Your task to perform on an android device: Do I have any events tomorrow? Image 0: 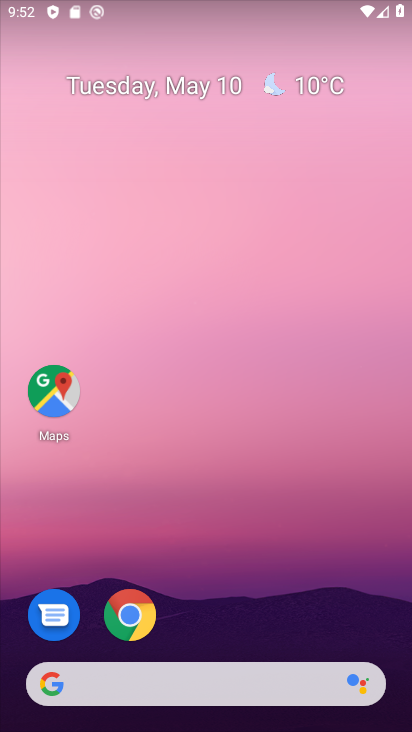
Step 0: drag from (377, 628) to (294, 5)
Your task to perform on an android device: Do I have any events tomorrow? Image 1: 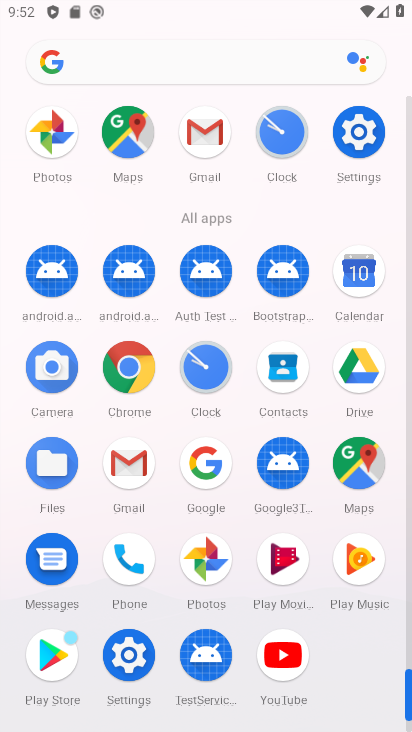
Step 1: click (358, 265)
Your task to perform on an android device: Do I have any events tomorrow? Image 2: 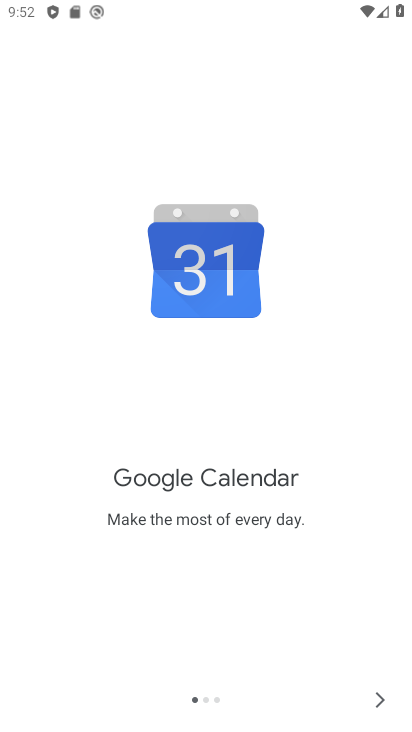
Step 2: click (379, 696)
Your task to perform on an android device: Do I have any events tomorrow? Image 3: 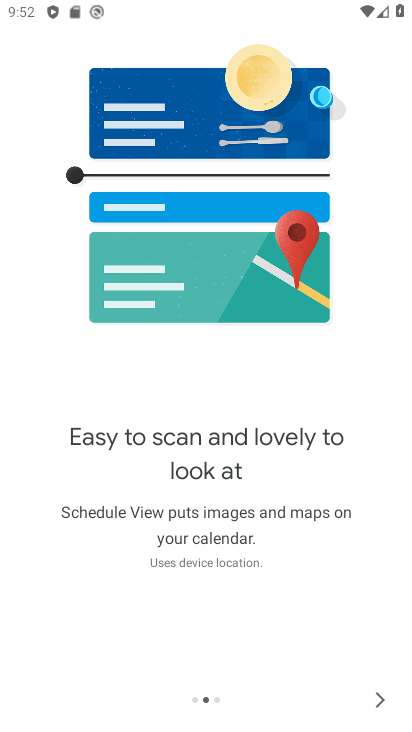
Step 3: click (379, 696)
Your task to perform on an android device: Do I have any events tomorrow? Image 4: 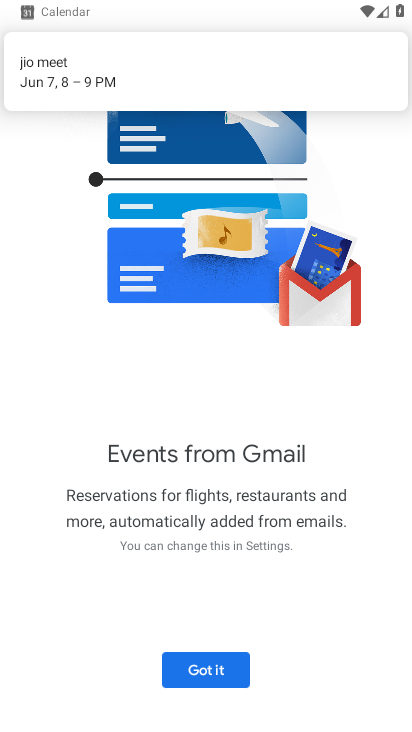
Step 4: click (206, 666)
Your task to perform on an android device: Do I have any events tomorrow? Image 5: 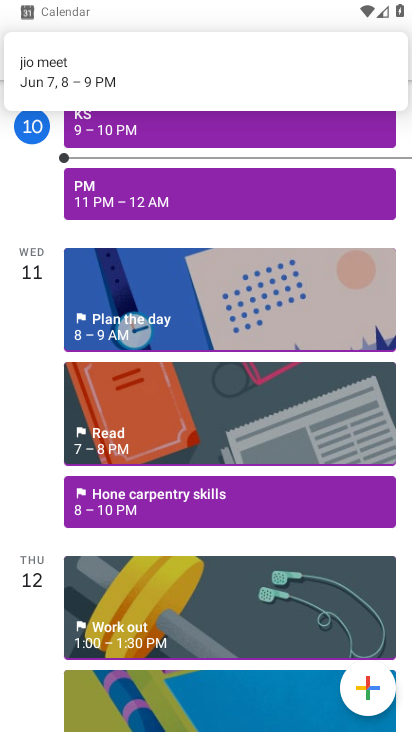
Step 5: drag from (30, 65) to (411, 382)
Your task to perform on an android device: Do I have any events tomorrow? Image 6: 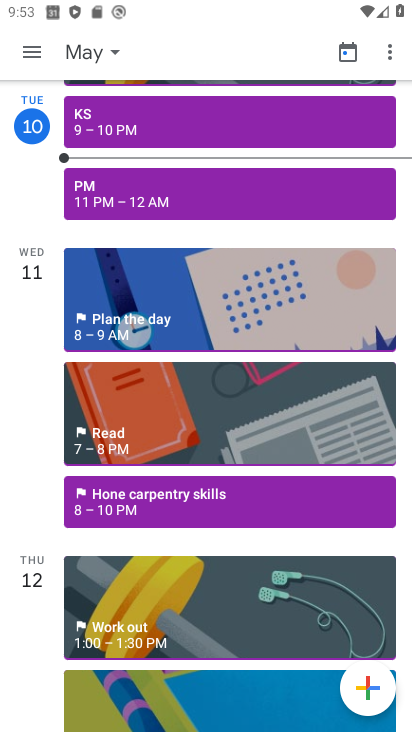
Step 6: click (22, 49)
Your task to perform on an android device: Do I have any events tomorrow? Image 7: 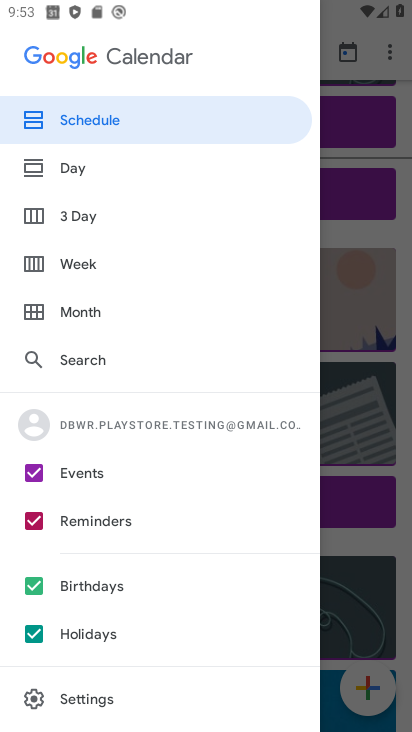
Step 7: click (73, 166)
Your task to perform on an android device: Do I have any events tomorrow? Image 8: 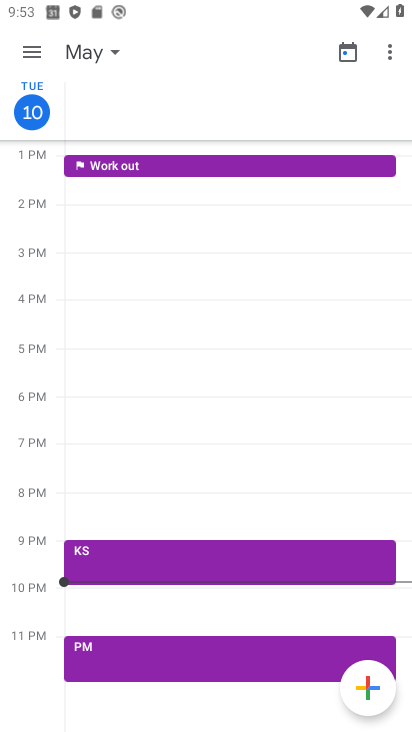
Step 8: click (113, 56)
Your task to perform on an android device: Do I have any events tomorrow? Image 9: 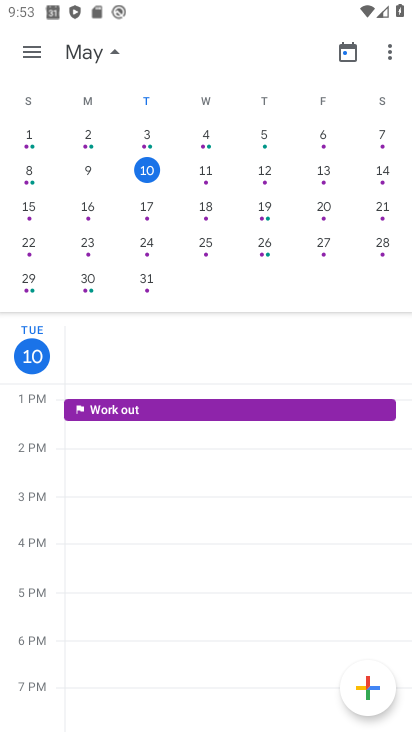
Step 9: click (204, 172)
Your task to perform on an android device: Do I have any events tomorrow? Image 10: 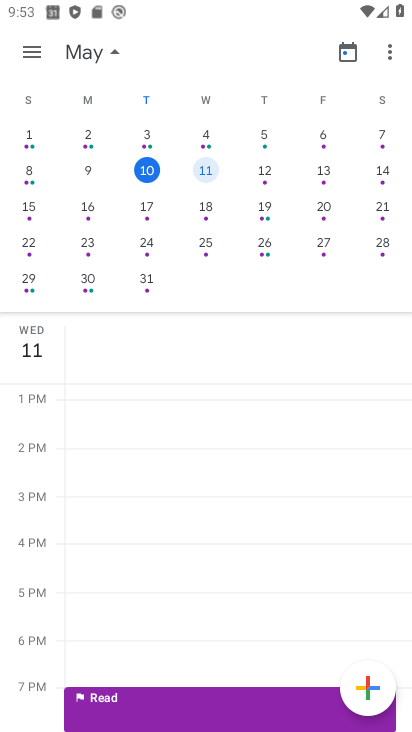
Step 10: task complete